Your task to perform on an android device: turn off notifications in google photos Image 0: 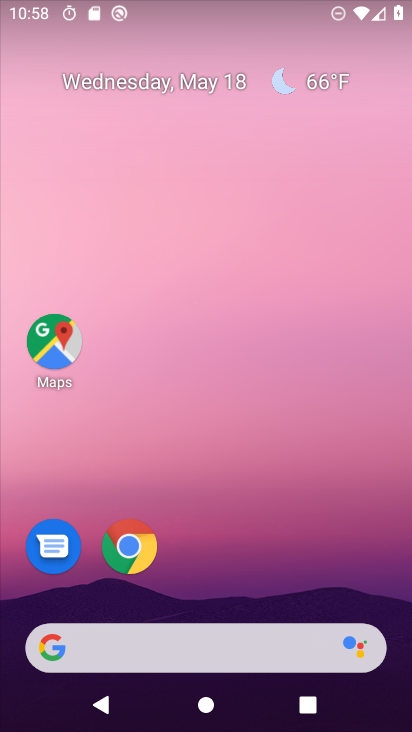
Step 0: drag from (226, 586) to (324, 31)
Your task to perform on an android device: turn off notifications in google photos Image 1: 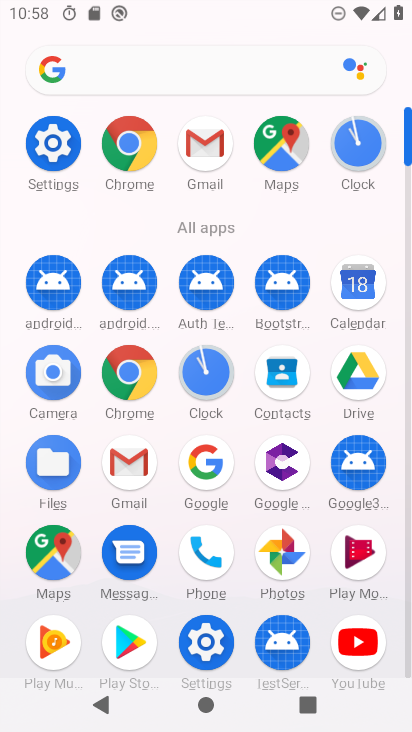
Step 1: click (293, 552)
Your task to perform on an android device: turn off notifications in google photos Image 2: 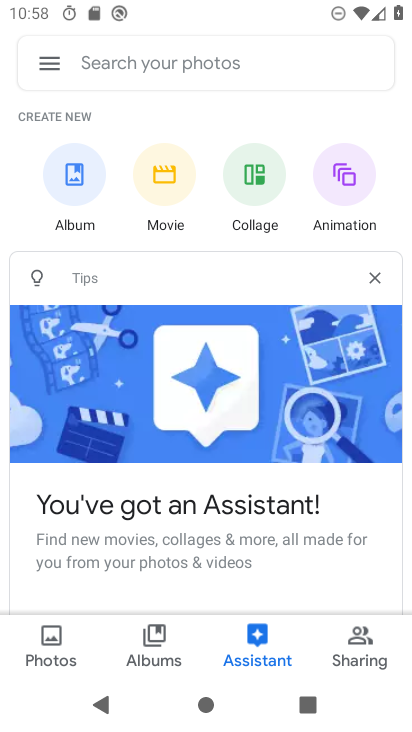
Step 2: click (49, 69)
Your task to perform on an android device: turn off notifications in google photos Image 3: 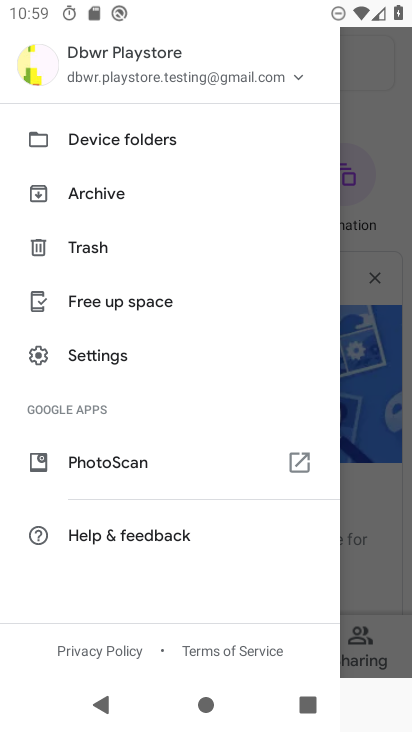
Step 3: click (49, 69)
Your task to perform on an android device: turn off notifications in google photos Image 4: 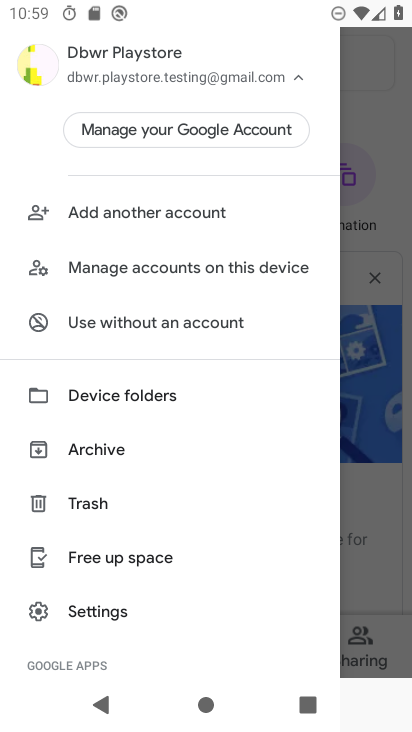
Step 4: click (86, 621)
Your task to perform on an android device: turn off notifications in google photos Image 5: 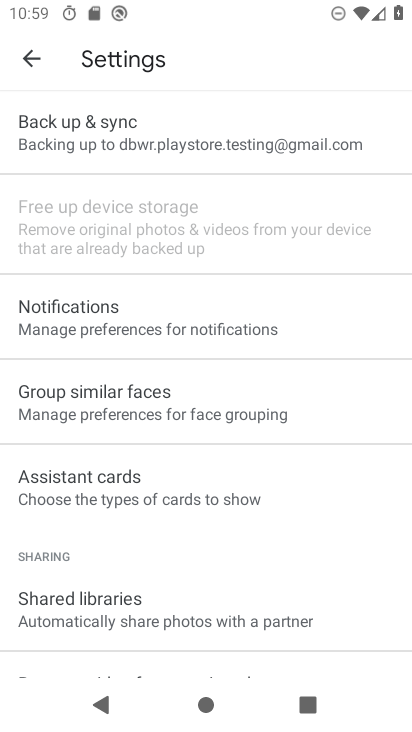
Step 5: click (88, 324)
Your task to perform on an android device: turn off notifications in google photos Image 6: 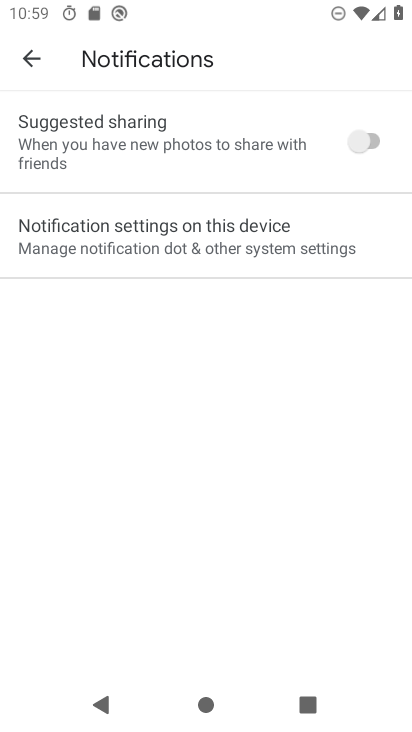
Step 6: click (216, 206)
Your task to perform on an android device: turn off notifications in google photos Image 7: 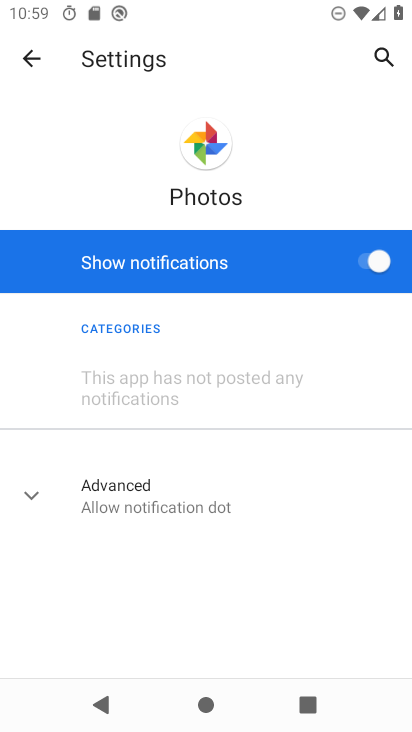
Step 7: click (391, 268)
Your task to perform on an android device: turn off notifications in google photos Image 8: 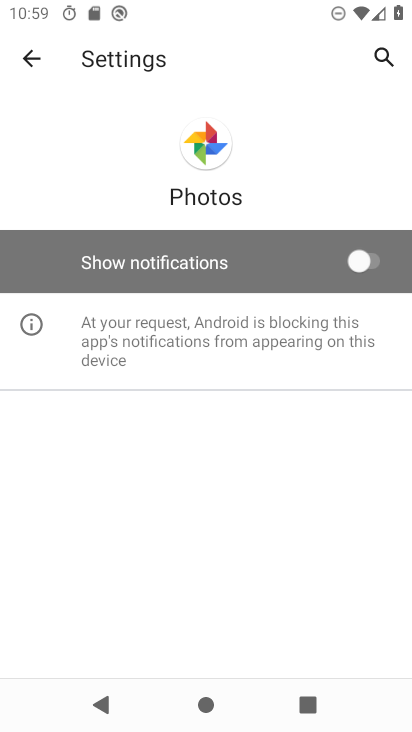
Step 8: task complete